Your task to perform on an android device: What's the weather? Image 0: 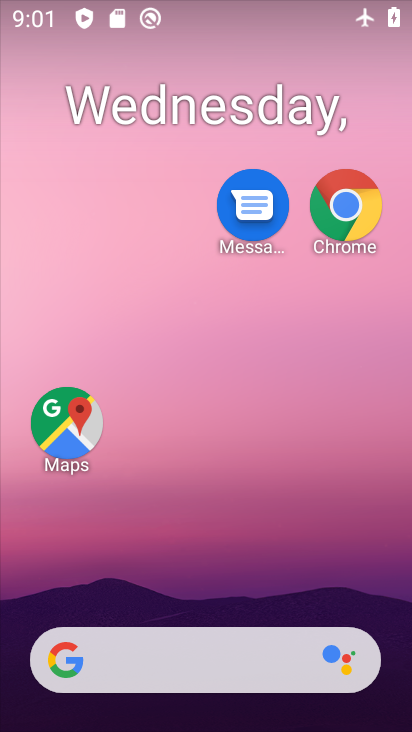
Step 0: press home button
Your task to perform on an android device: What's the weather? Image 1: 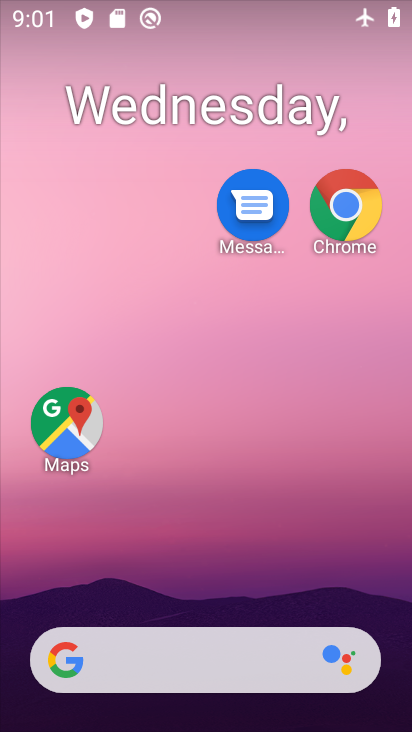
Step 1: drag from (243, 561) to (280, 187)
Your task to perform on an android device: What's the weather? Image 2: 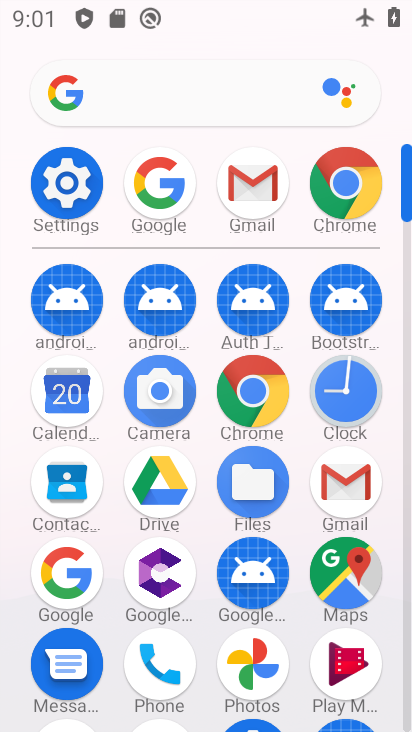
Step 2: click (254, 385)
Your task to perform on an android device: What's the weather? Image 3: 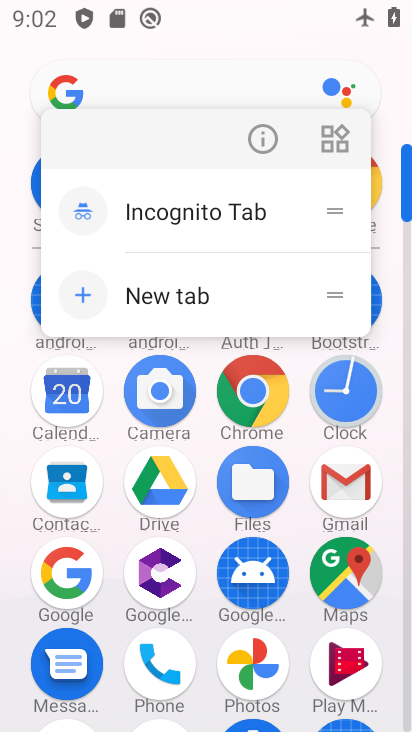
Step 3: click (250, 394)
Your task to perform on an android device: What's the weather? Image 4: 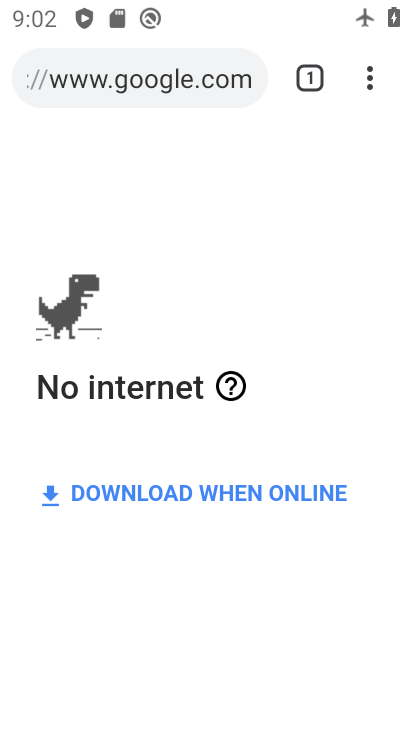
Step 4: drag from (366, 10) to (275, 527)
Your task to perform on an android device: What's the weather? Image 5: 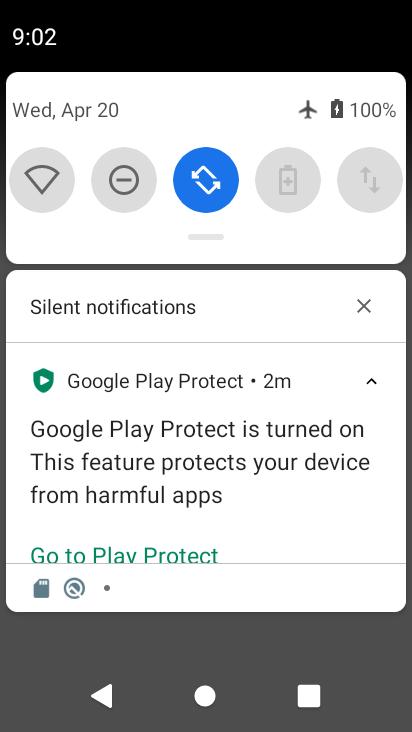
Step 5: drag from (227, 220) to (180, 555)
Your task to perform on an android device: What's the weather? Image 6: 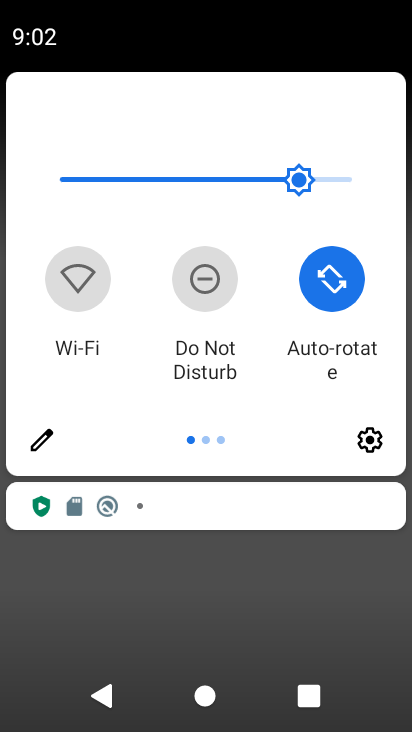
Step 6: drag from (311, 302) to (6, 299)
Your task to perform on an android device: What's the weather? Image 7: 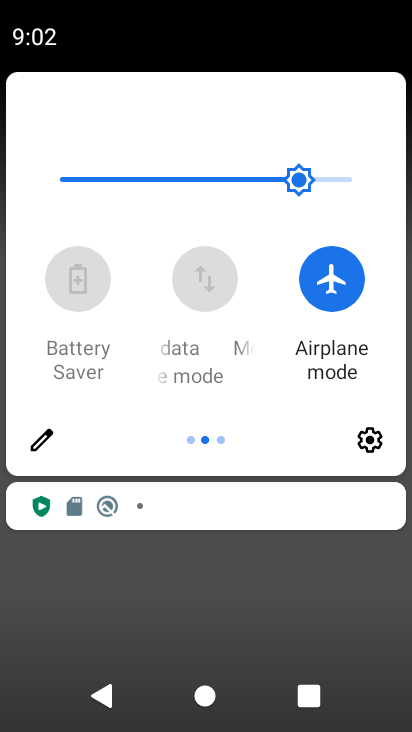
Step 7: drag from (327, 329) to (0, 319)
Your task to perform on an android device: What's the weather? Image 8: 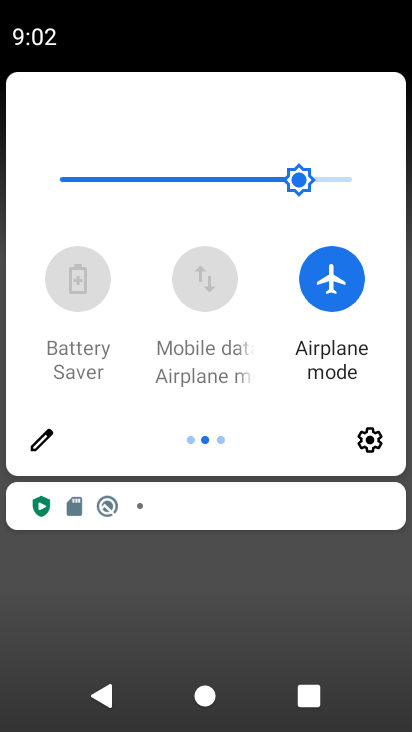
Step 8: click (332, 275)
Your task to perform on an android device: What's the weather? Image 9: 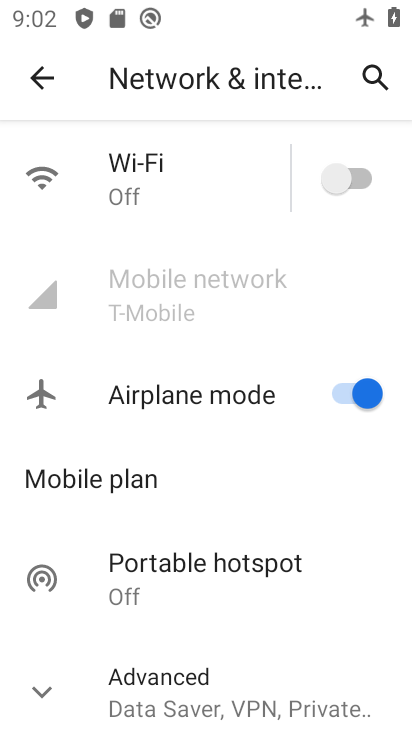
Step 9: click (348, 393)
Your task to perform on an android device: What's the weather? Image 10: 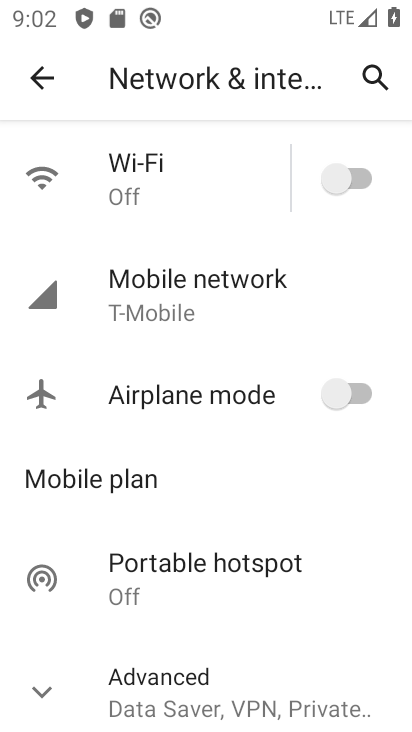
Step 10: drag from (162, 259) to (297, 548)
Your task to perform on an android device: What's the weather? Image 11: 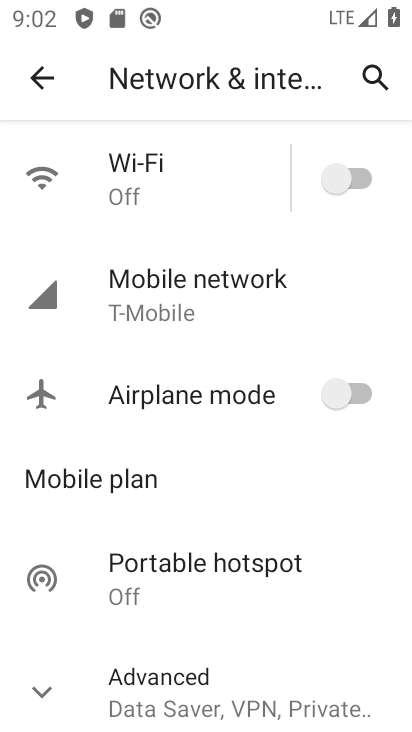
Step 11: drag from (261, 611) to (319, 196)
Your task to perform on an android device: What's the weather? Image 12: 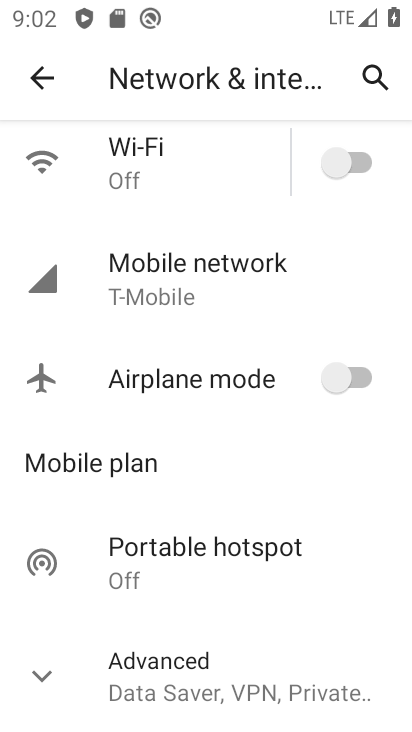
Step 12: press home button
Your task to perform on an android device: What's the weather? Image 13: 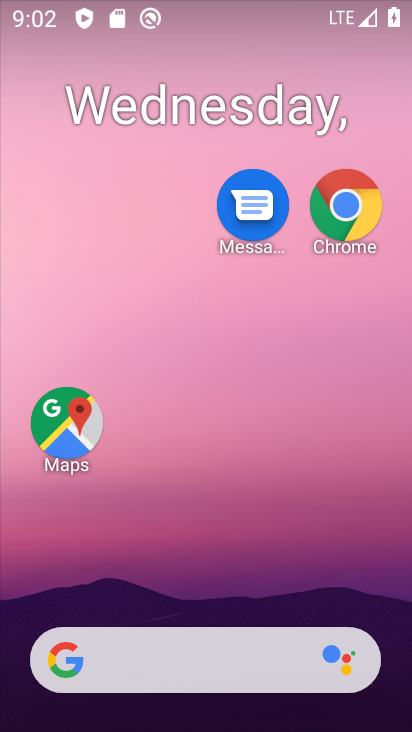
Step 13: click (356, 215)
Your task to perform on an android device: What's the weather? Image 14: 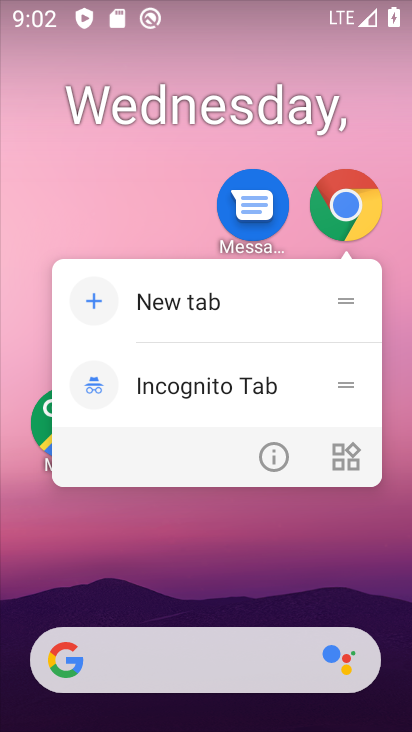
Step 14: click (282, 458)
Your task to perform on an android device: What's the weather? Image 15: 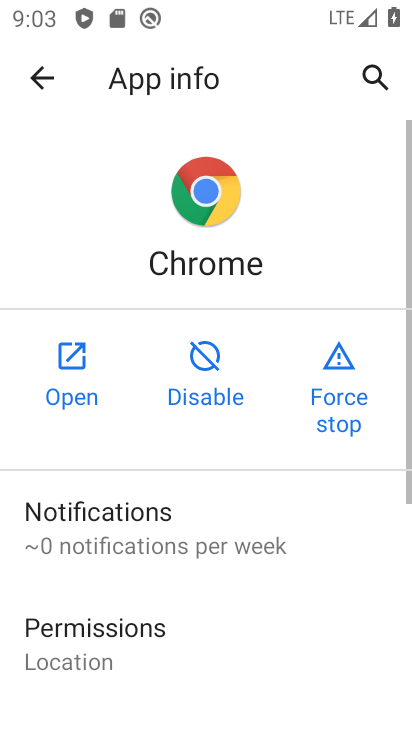
Step 15: click (72, 339)
Your task to perform on an android device: What's the weather? Image 16: 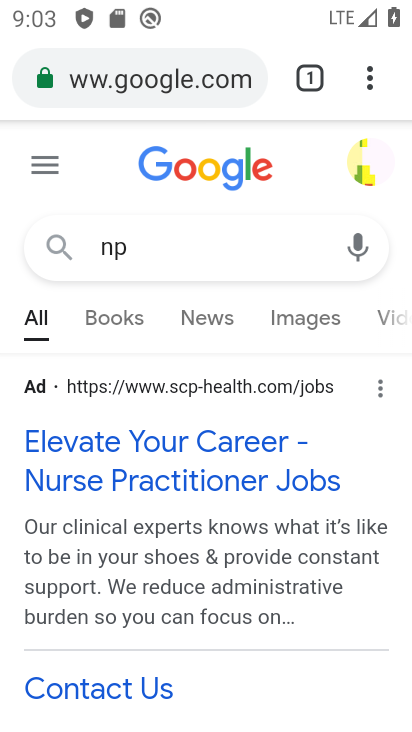
Step 16: drag from (233, 457) to (285, 129)
Your task to perform on an android device: What's the weather? Image 17: 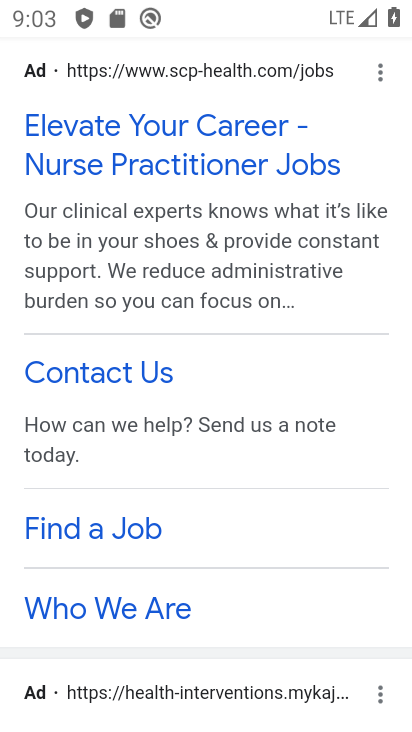
Step 17: drag from (209, 195) to (310, 599)
Your task to perform on an android device: What's the weather? Image 18: 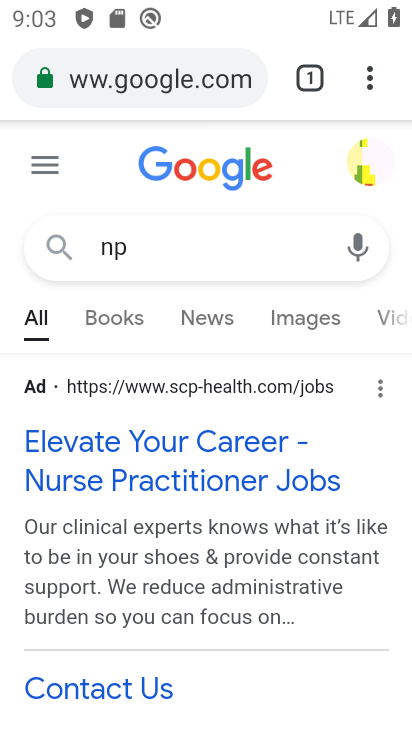
Step 18: click (168, 89)
Your task to perform on an android device: What's the weather? Image 19: 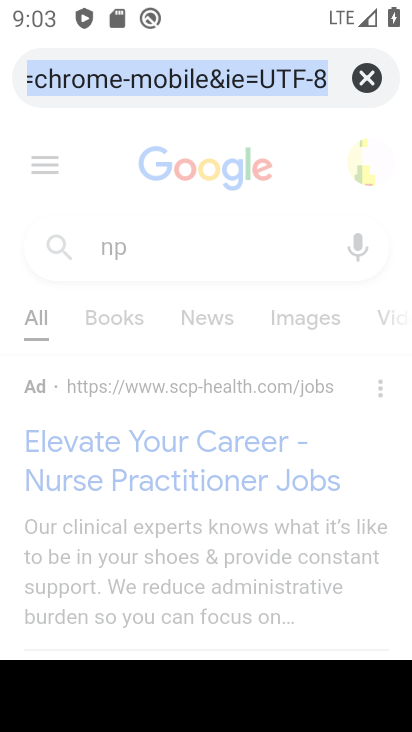
Step 19: click (363, 80)
Your task to perform on an android device: What's the weather? Image 20: 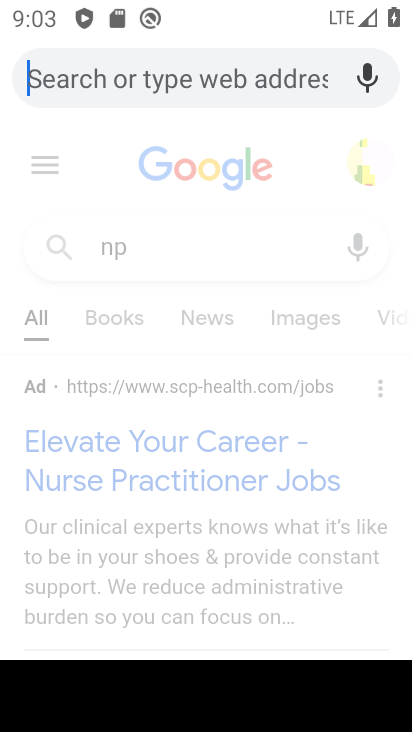
Step 20: type "weather "
Your task to perform on an android device: What's the weather? Image 21: 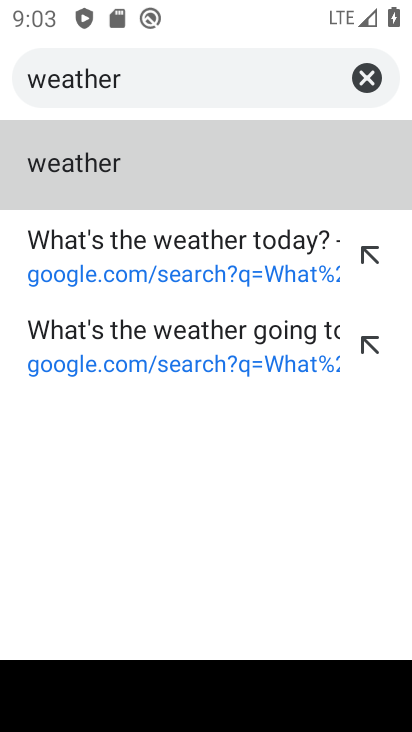
Step 21: click (125, 173)
Your task to perform on an android device: What's the weather? Image 22: 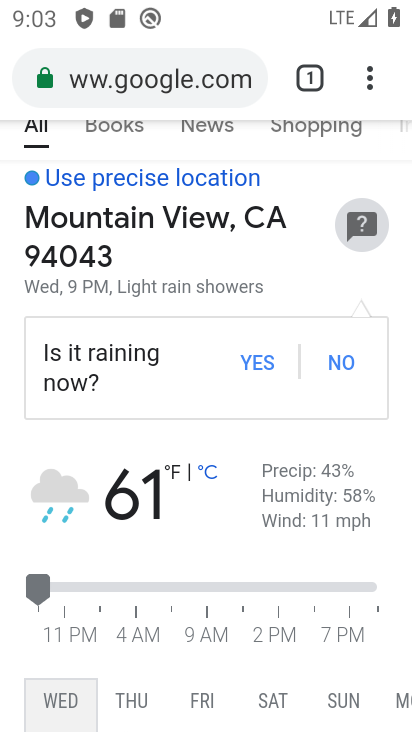
Step 22: task complete